Your task to perform on an android device: delete browsing data in the chrome app Image 0: 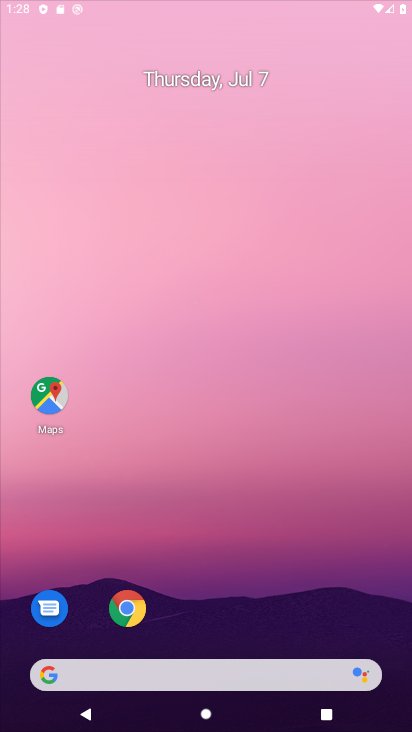
Step 0: click (118, 609)
Your task to perform on an android device: delete browsing data in the chrome app Image 1: 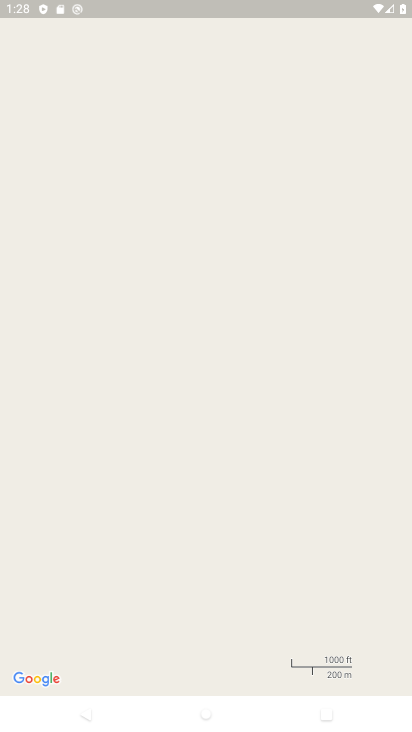
Step 1: press home button
Your task to perform on an android device: delete browsing data in the chrome app Image 2: 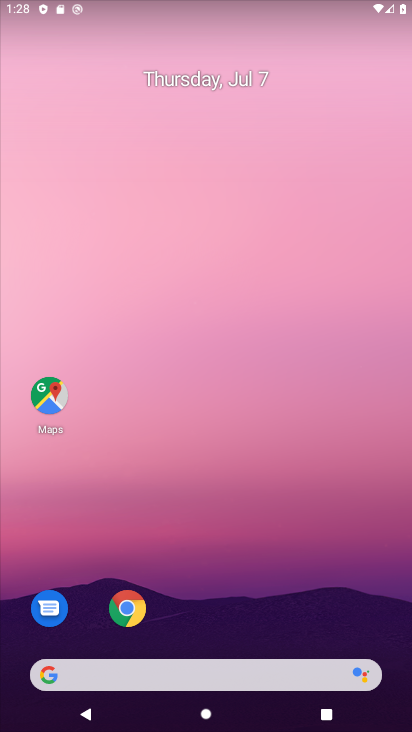
Step 2: click (139, 614)
Your task to perform on an android device: delete browsing data in the chrome app Image 3: 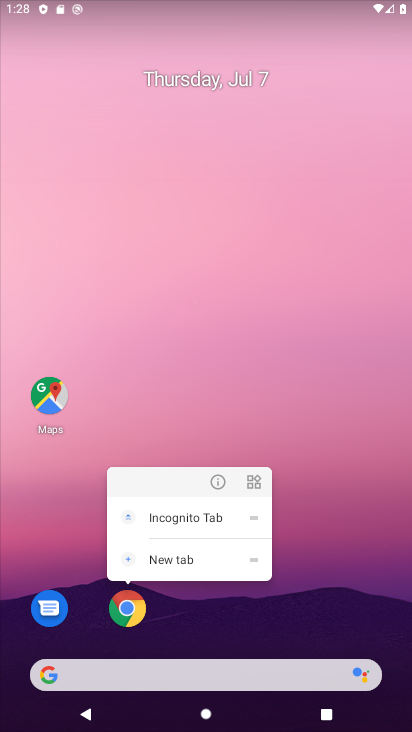
Step 3: click (135, 615)
Your task to perform on an android device: delete browsing data in the chrome app Image 4: 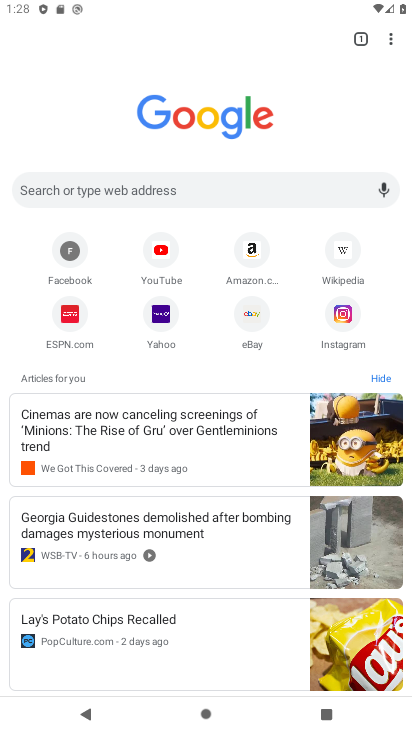
Step 4: drag from (394, 39) to (300, 326)
Your task to perform on an android device: delete browsing data in the chrome app Image 5: 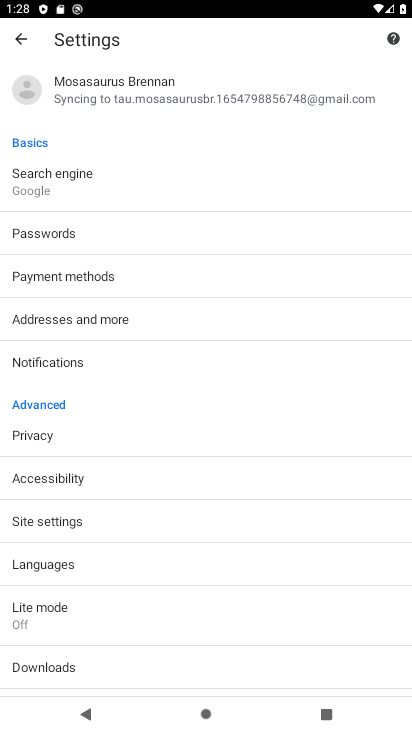
Step 5: click (94, 440)
Your task to perform on an android device: delete browsing data in the chrome app Image 6: 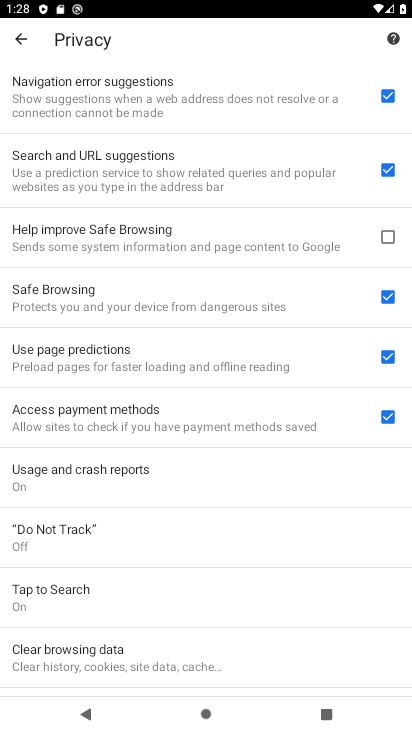
Step 6: click (110, 657)
Your task to perform on an android device: delete browsing data in the chrome app Image 7: 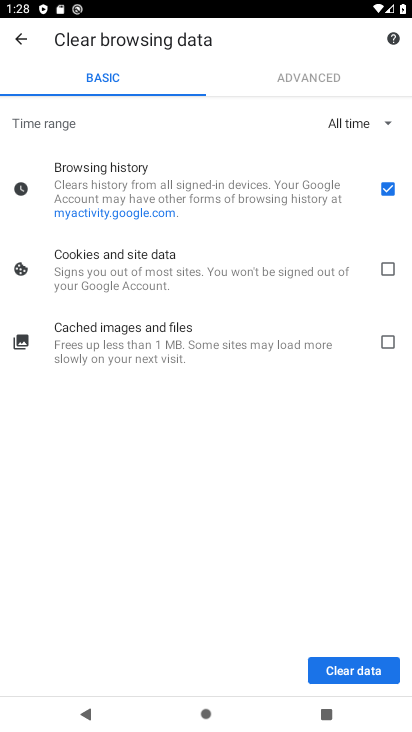
Step 7: click (390, 265)
Your task to perform on an android device: delete browsing data in the chrome app Image 8: 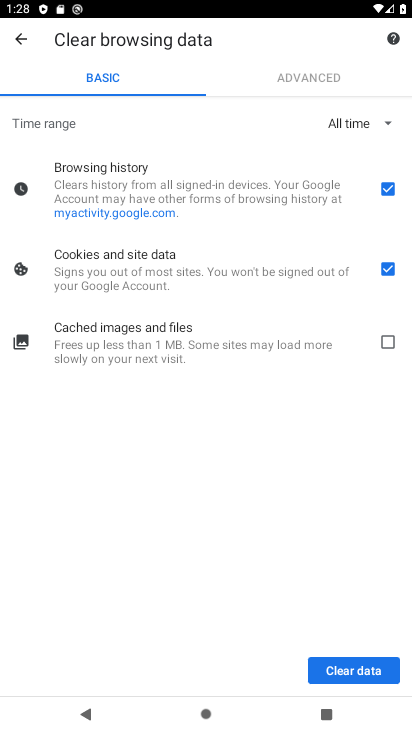
Step 8: click (390, 344)
Your task to perform on an android device: delete browsing data in the chrome app Image 9: 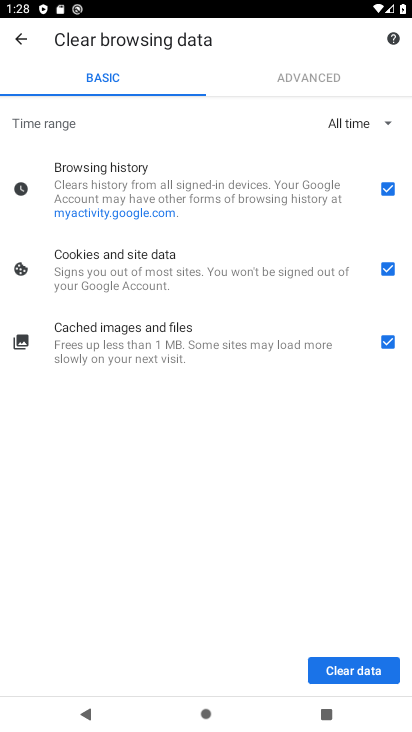
Step 9: click (356, 669)
Your task to perform on an android device: delete browsing data in the chrome app Image 10: 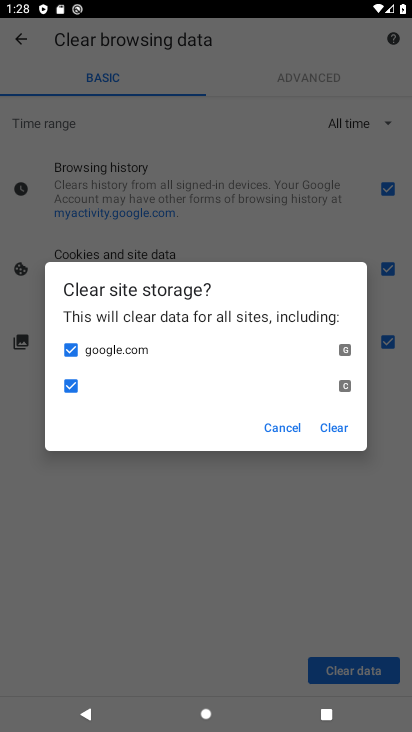
Step 10: click (344, 418)
Your task to perform on an android device: delete browsing data in the chrome app Image 11: 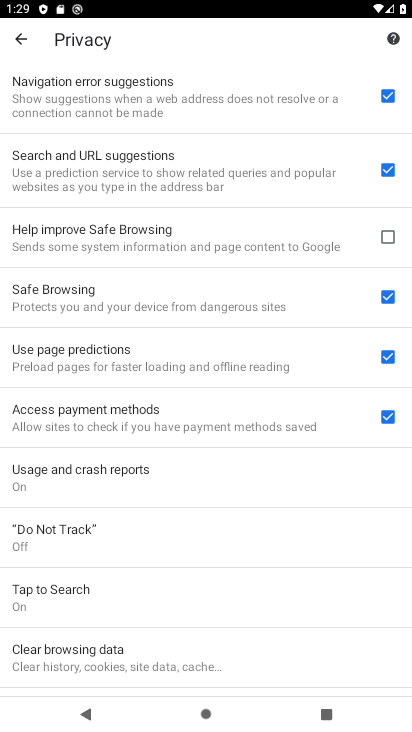
Step 11: task complete